Your task to perform on an android device: toggle pop-ups in chrome Image 0: 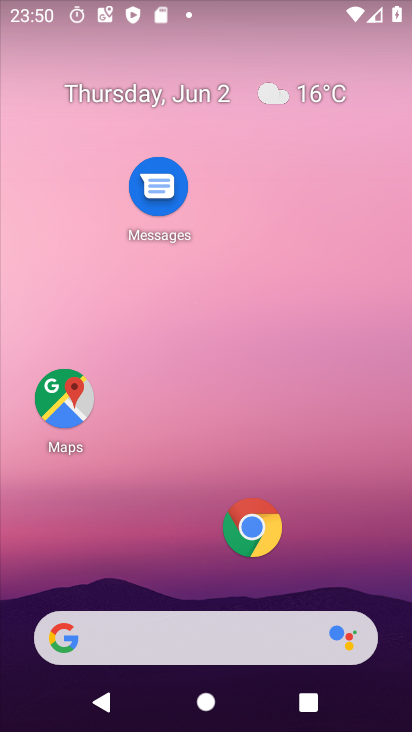
Step 0: click (248, 516)
Your task to perform on an android device: toggle pop-ups in chrome Image 1: 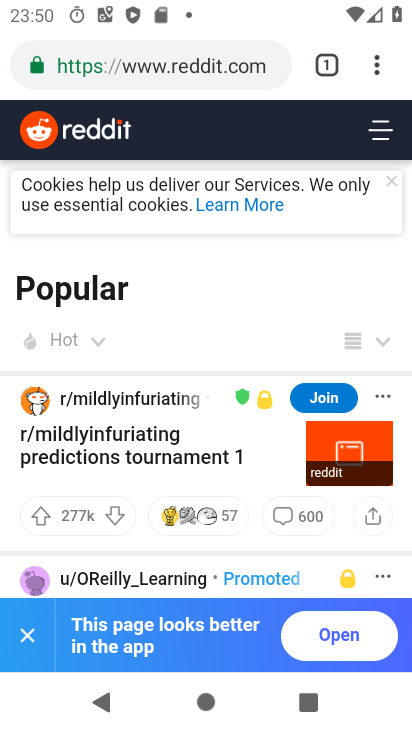
Step 1: click (381, 58)
Your task to perform on an android device: toggle pop-ups in chrome Image 2: 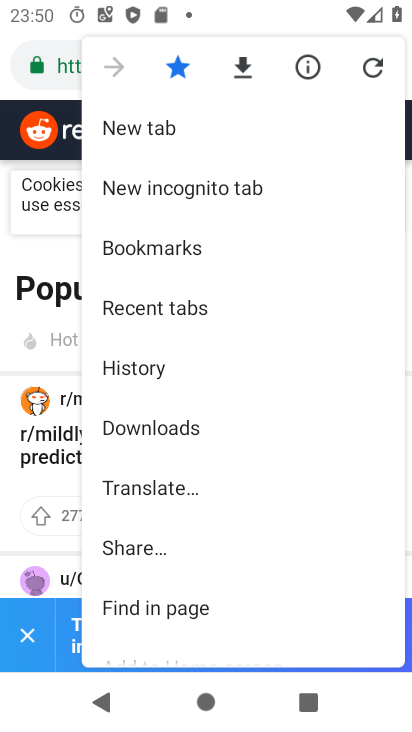
Step 2: drag from (259, 579) to (267, 35)
Your task to perform on an android device: toggle pop-ups in chrome Image 3: 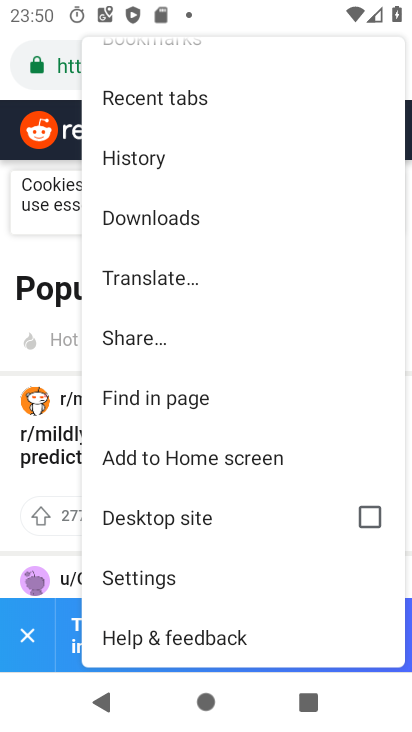
Step 3: click (187, 574)
Your task to perform on an android device: toggle pop-ups in chrome Image 4: 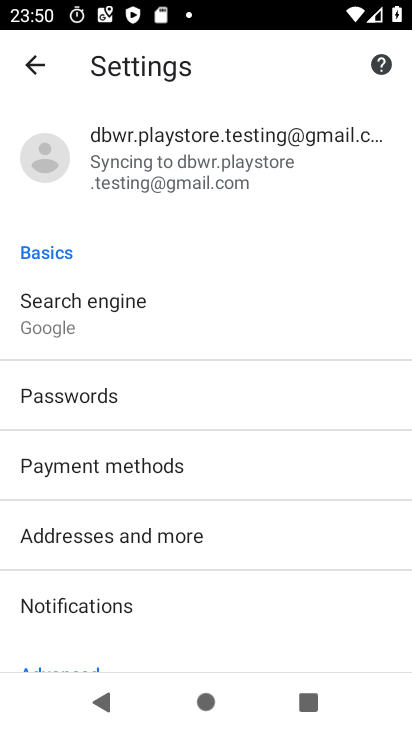
Step 4: drag from (219, 621) to (233, 95)
Your task to perform on an android device: toggle pop-ups in chrome Image 5: 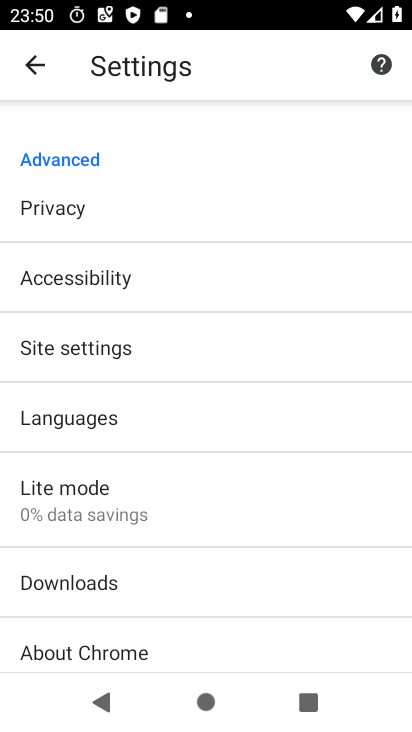
Step 5: click (164, 348)
Your task to perform on an android device: toggle pop-ups in chrome Image 6: 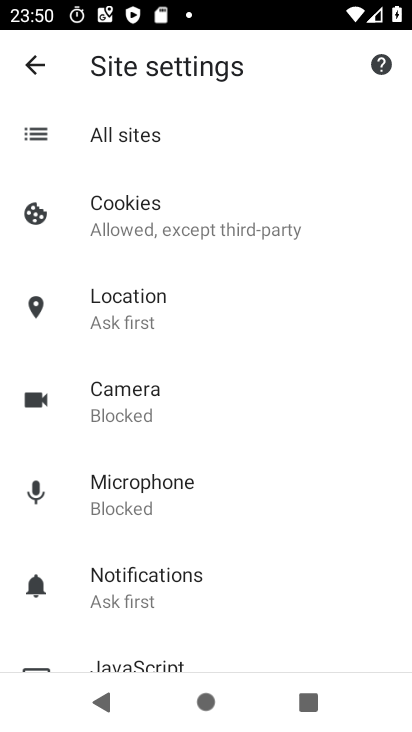
Step 6: drag from (237, 640) to (241, 217)
Your task to perform on an android device: toggle pop-ups in chrome Image 7: 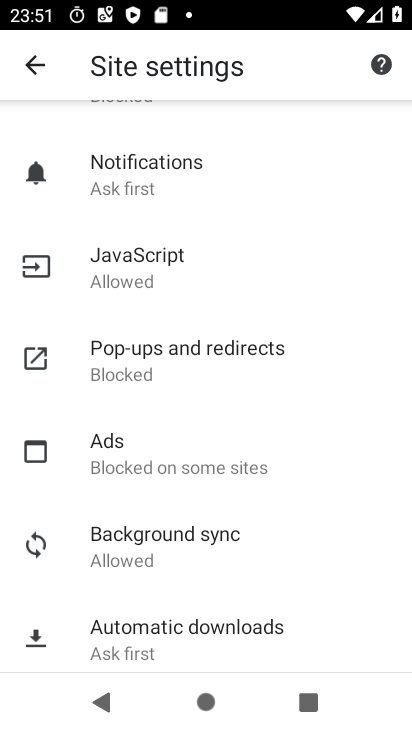
Step 7: click (175, 362)
Your task to perform on an android device: toggle pop-ups in chrome Image 8: 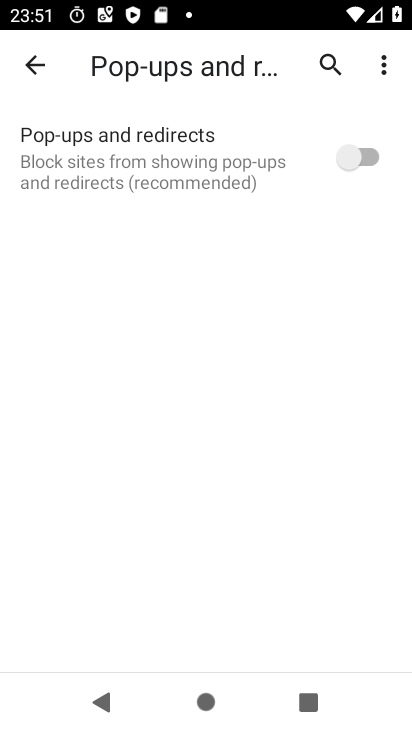
Step 8: click (369, 153)
Your task to perform on an android device: toggle pop-ups in chrome Image 9: 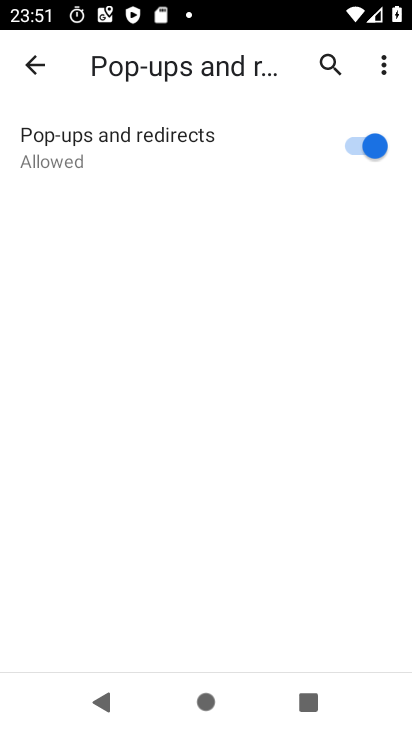
Step 9: task complete